Your task to perform on an android device: check google app version Image 0: 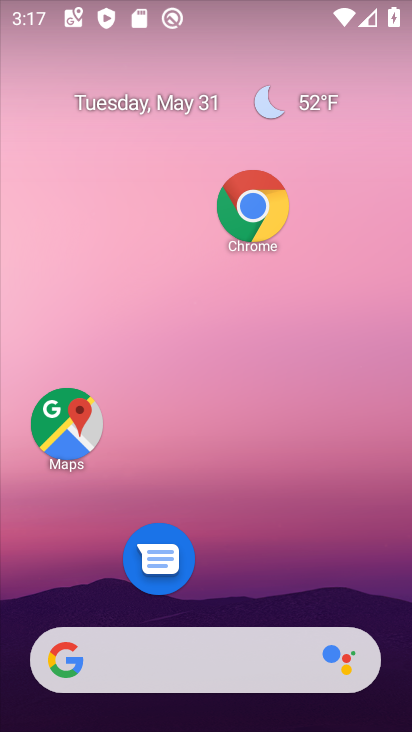
Step 0: drag from (212, 577) to (193, 194)
Your task to perform on an android device: check google app version Image 1: 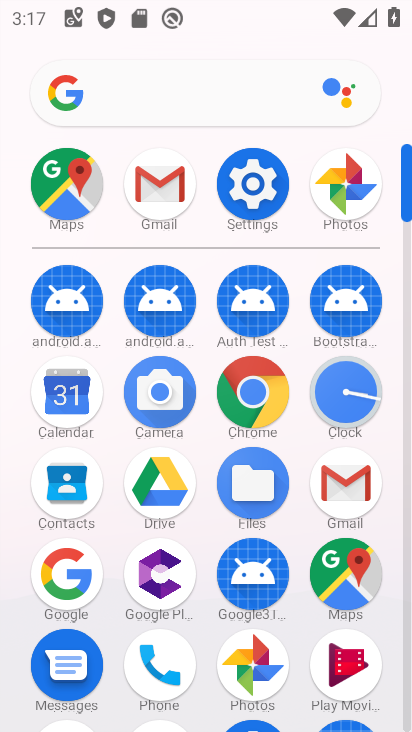
Step 1: click (74, 559)
Your task to perform on an android device: check google app version Image 2: 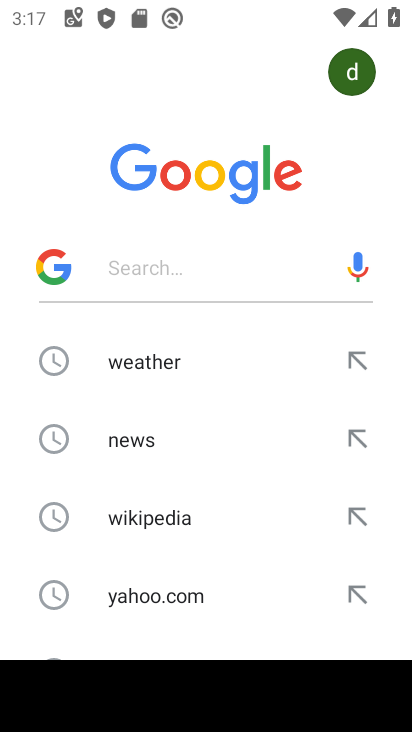
Step 2: click (49, 250)
Your task to perform on an android device: check google app version Image 3: 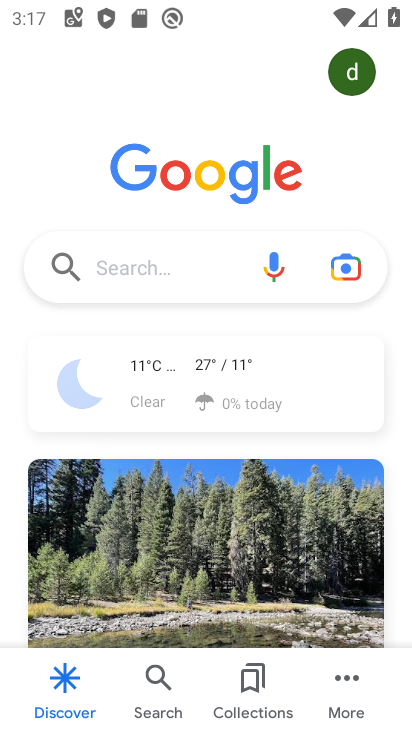
Step 3: click (328, 681)
Your task to perform on an android device: check google app version Image 4: 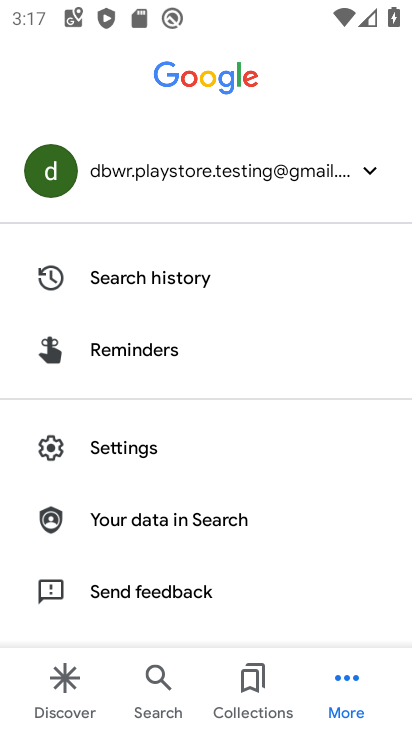
Step 4: click (113, 454)
Your task to perform on an android device: check google app version Image 5: 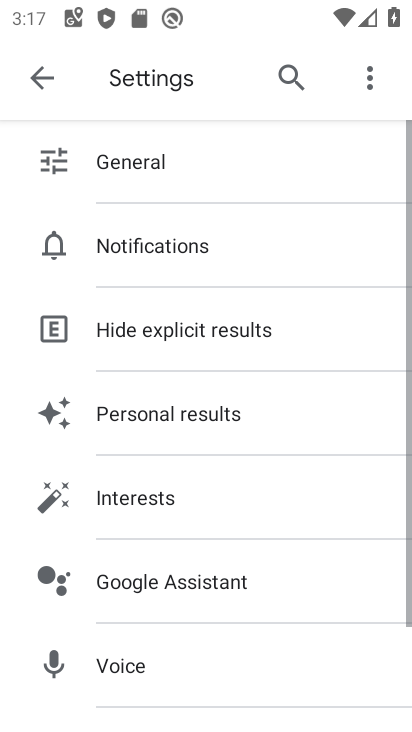
Step 5: drag from (171, 605) to (222, 275)
Your task to perform on an android device: check google app version Image 6: 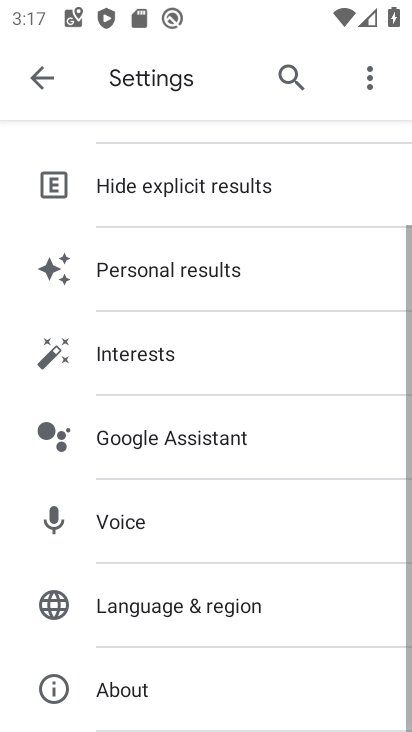
Step 6: drag from (157, 635) to (203, 396)
Your task to perform on an android device: check google app version Image 7: 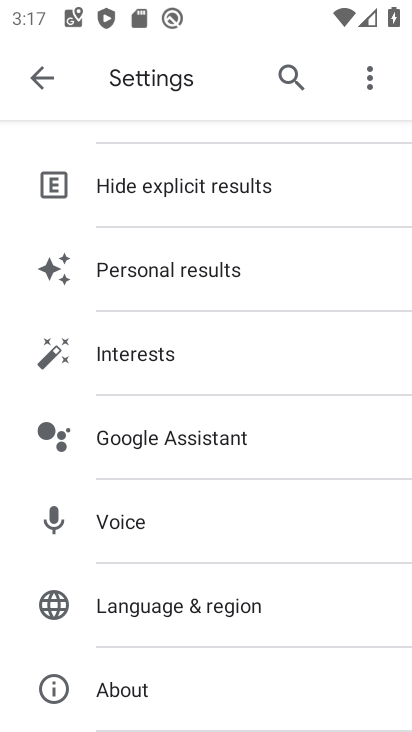
Step 7: drag from (191, 589) to (216, 327)
Your task to perform on an android device: check google app version Image 8: 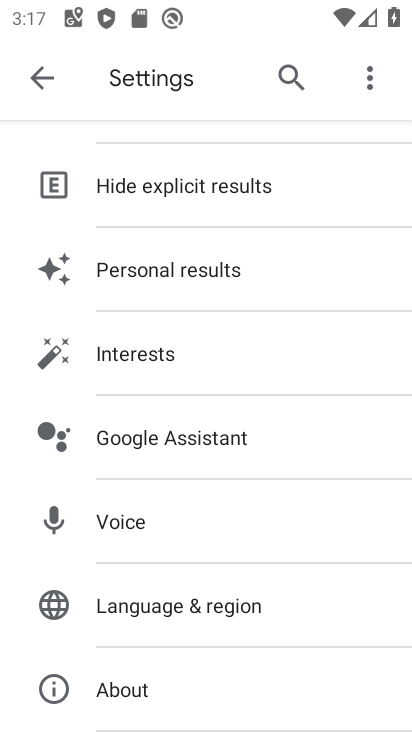
Step 8: click (150, 674)
Your task to perform on an android device: check google app version Image 9: 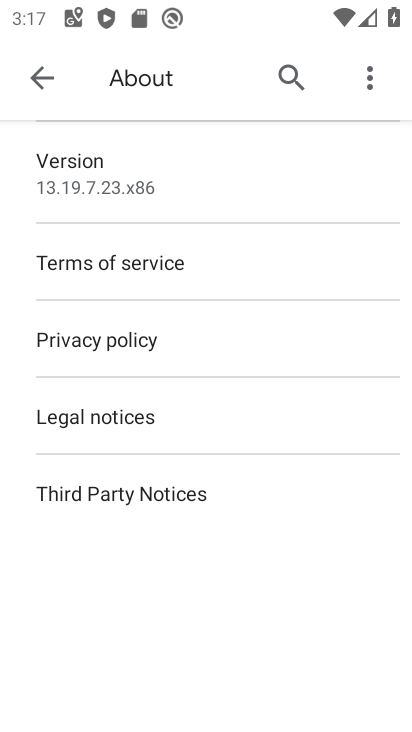
Step 9: click (119, 161)
Your task to perform on an android device: check google app version Image 10: 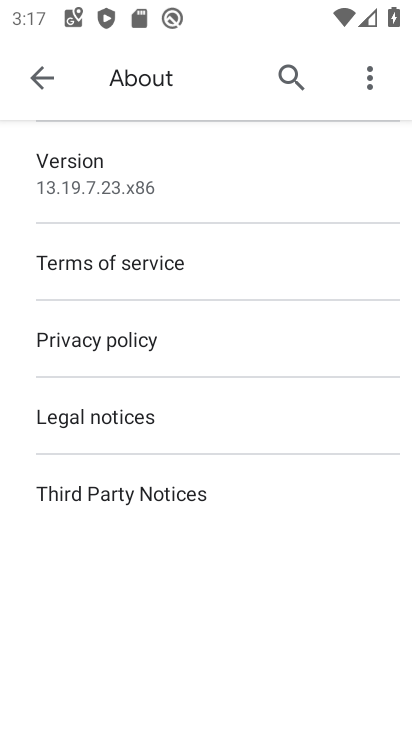
Step 10: click (192, 185)
Your task to perform on an android device: check google app version Image 11: 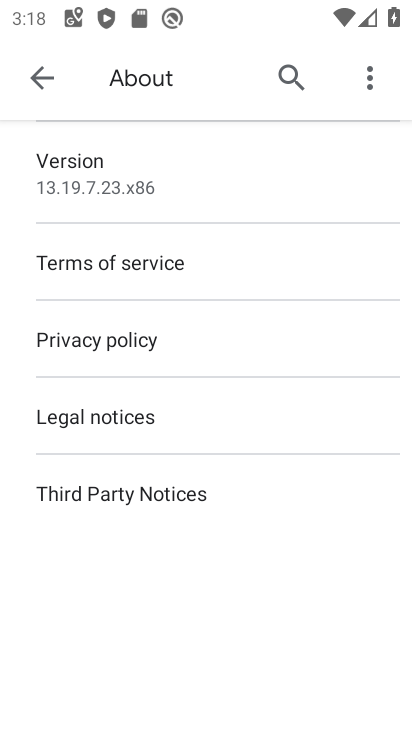
Step 11: task complete